Your task to perform on an android device: create a new album in the google photos Image 0: 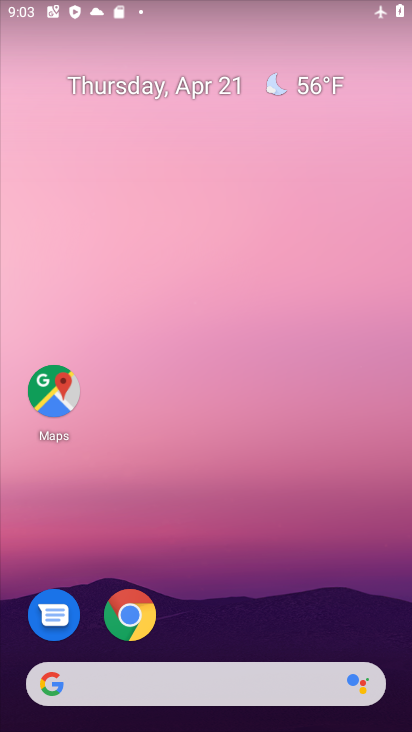
Step 0: click (132, 636)
Your task to perform on an android device: create a new album in the google photos Image 1: 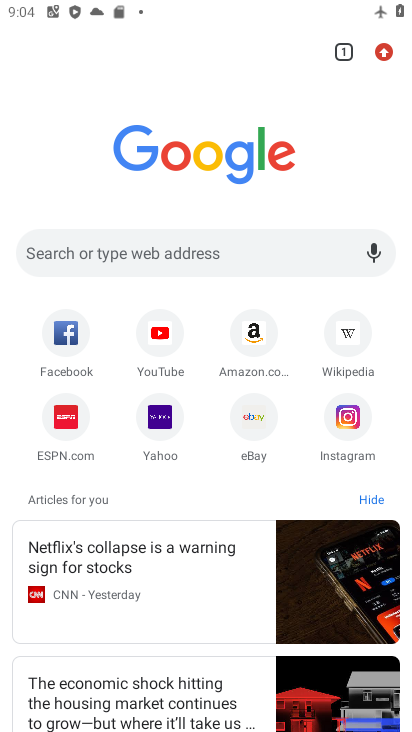
Step 1: press back button
Your task to perform on an android device: create a new album in the google photos Image 2: 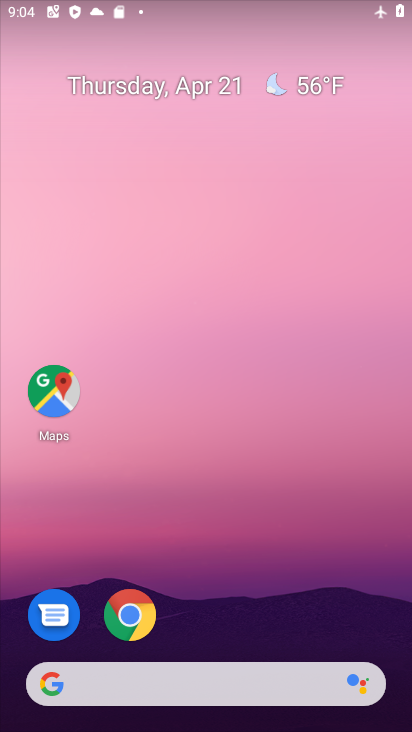
Step 2: drag from (177, 423) to (168, 84)
Your task to perform on an android device: create a new album in the google photos Image 3: 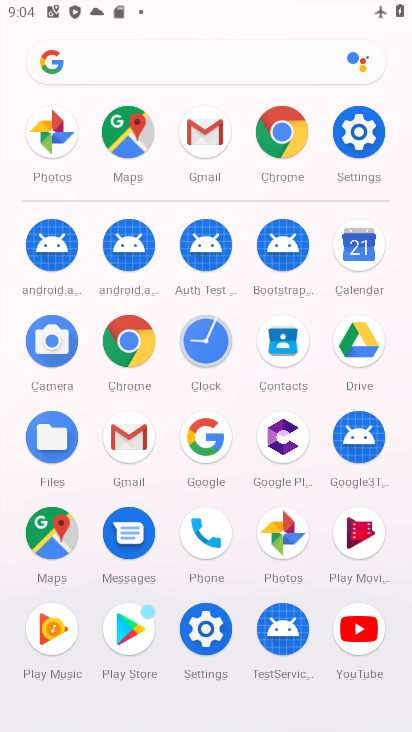
Step 3: click (280, 544)
Your task to perform on an android device: create a new album in the google photos Image 4: 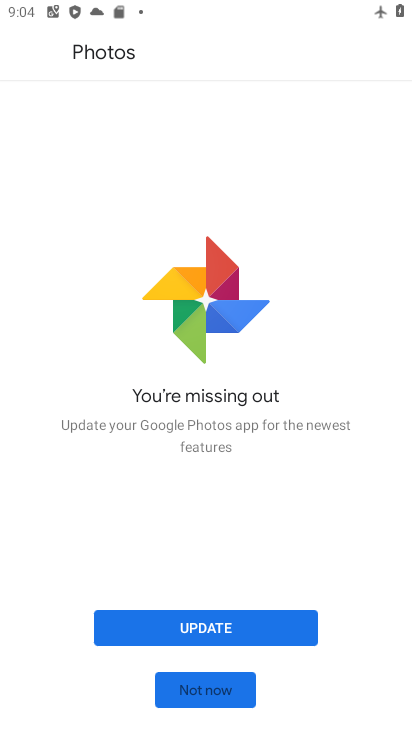
Step 4: click (191, 713)
Your task to perform on an android device: create a new album in the google photos Image 5: 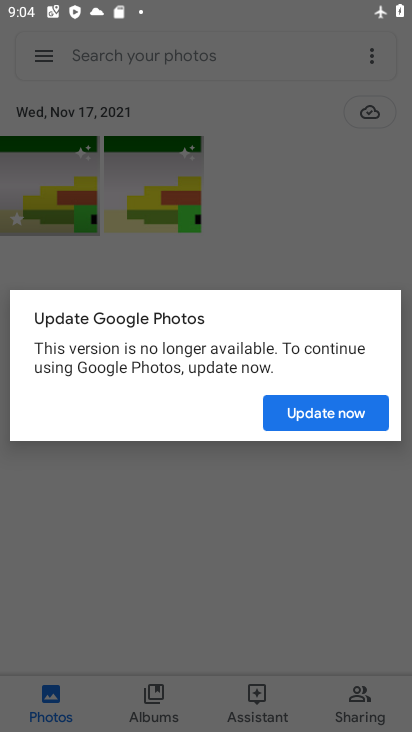
Step 5: click (376, 53)
Your task to perform on an android device: create a new album in the google photos Image 6: 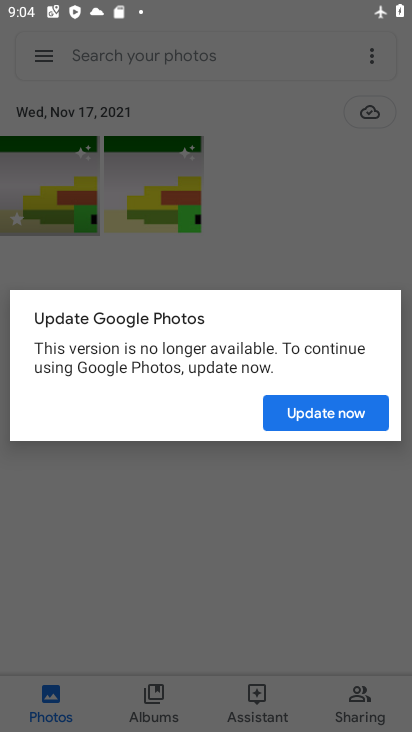
Step 6: click (276, 430)
Your task to perform on an android device: create a new album in the google photos Image 7: 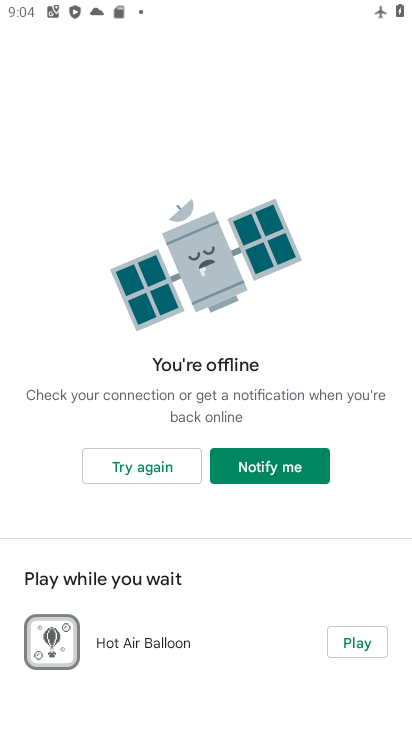
Step 7: click (124, 462)
Your task to perform on an android device: create a new album in the google photos Image 8: 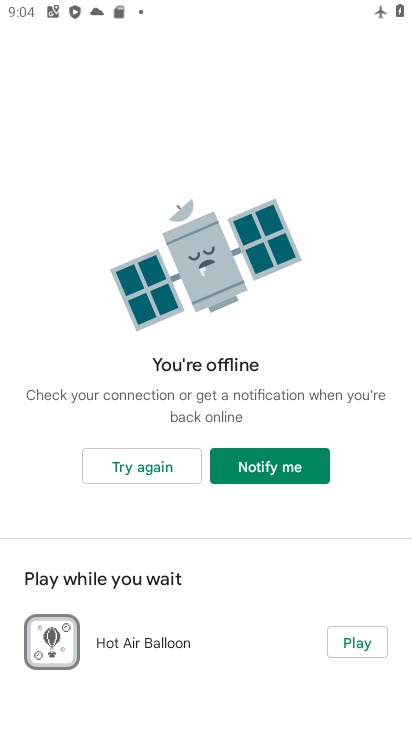
Step 8: click (241, 471)
Your task to perform on an android device: create a new album in the google photos Image 9: 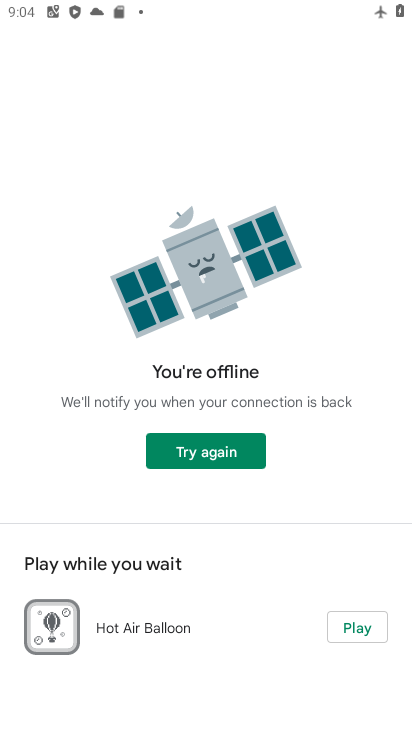
Step 9: task complete